Your task to perform on an android device: open sync settings in chrome Image 0: 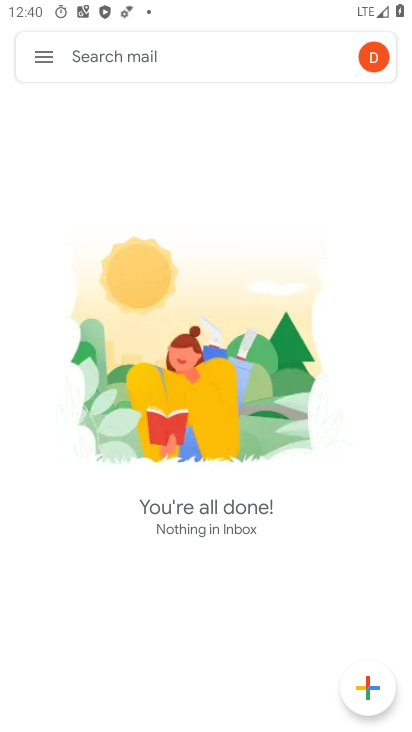
Step 0: press home button
Your task to perform on an android device: open sync settings in chrome Image 1: 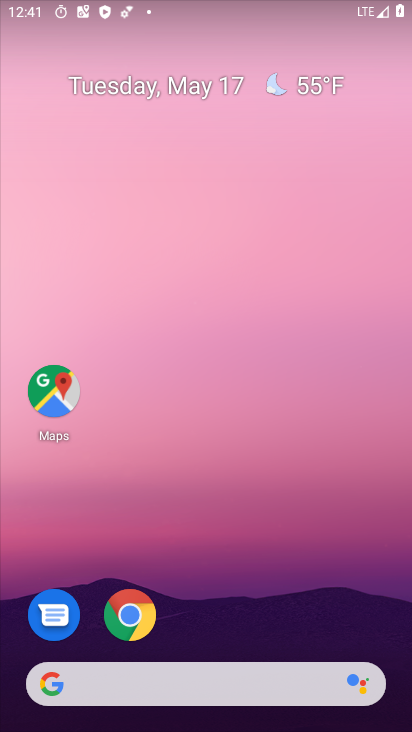
Step 1: drag from (266, 395) to (245, 78)
Your task to perform on an android device: open sync settings in chrome Image 2: 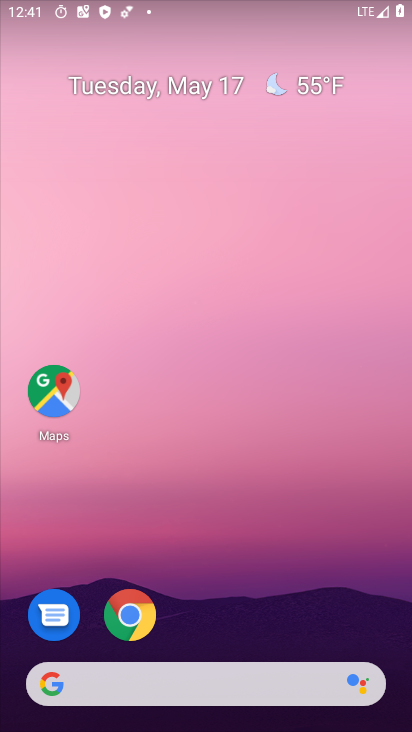
Step 2: drag from (294, 559) to (264, 167)
Your task to perform on an android device: open sync settings in chrome Image 3: 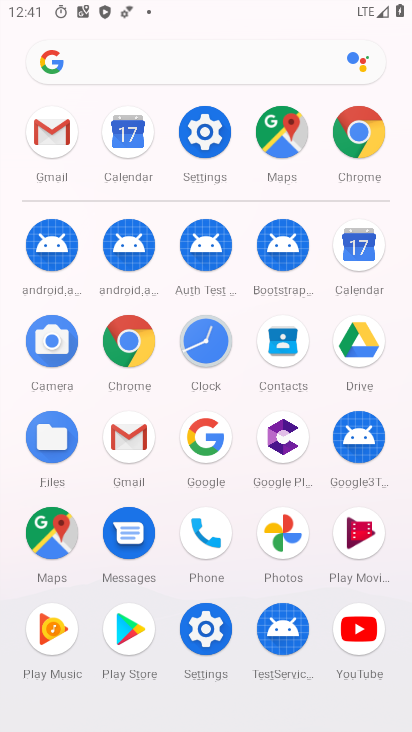
Step 3: click (214, 150)
Your task to perform on an android device: open sync settings in chrome Image 4: 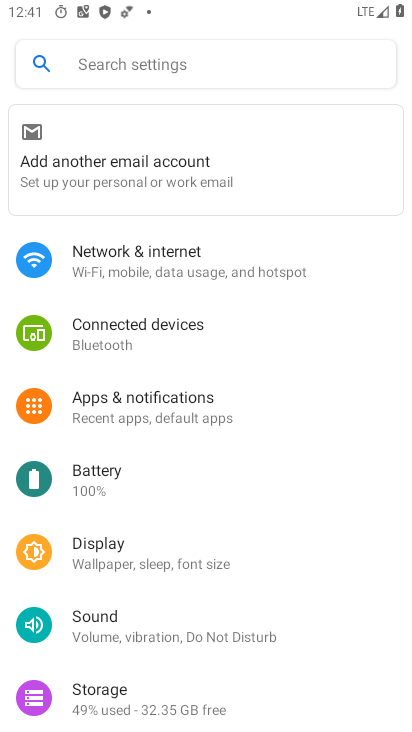
Step 4: press back button
Your task to perform on an android device: open sync settings in chrome Image 5: 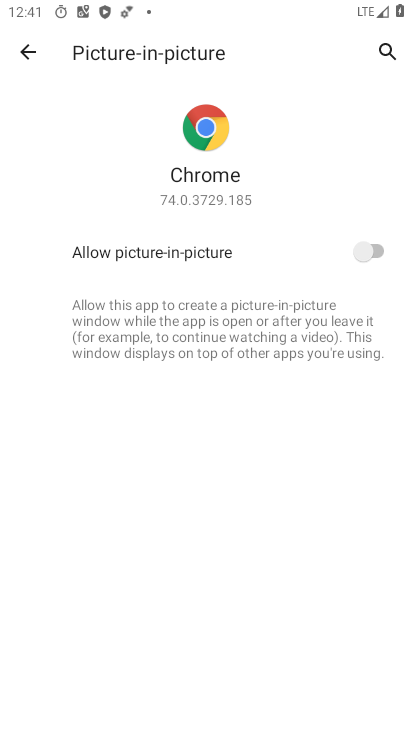
Step 5: press back button
Your task to perform on an android device: open sync settings in chrome Image 6: 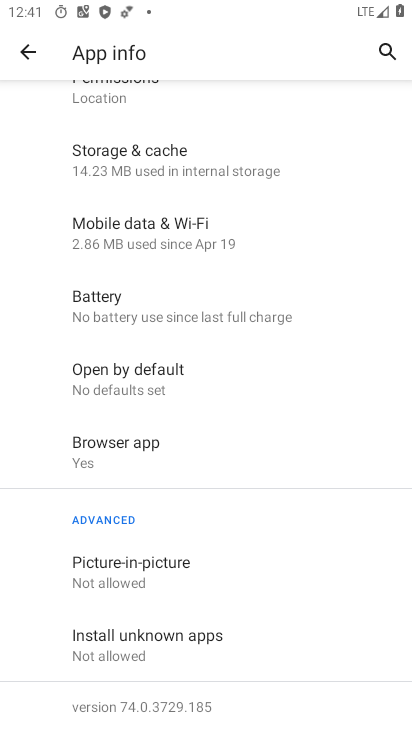
Step 6: press home button
Your task to perform on an android device: open sync settings in chrome Image 7: 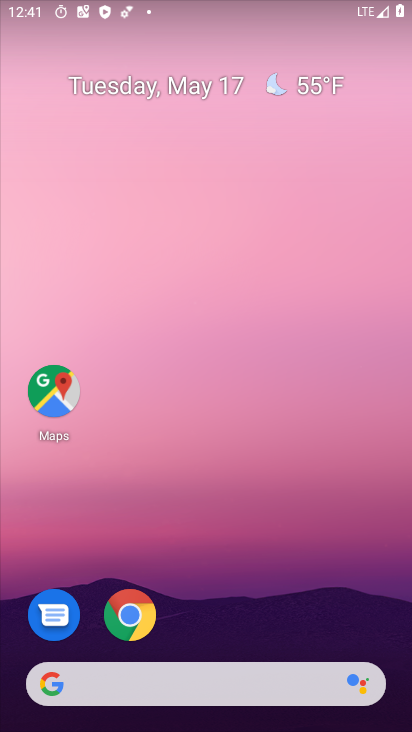
Step 7: click (134, 622)
Your task to perform on an android device: open sync settings in chrome Image 8: 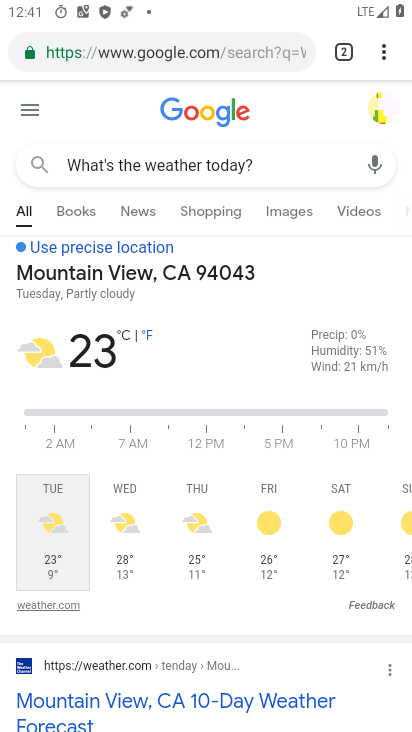
Step 8: drag from (379, 49) to (207, 597)
Your task to perform on an android device: open sync settings in chrome Image 9: 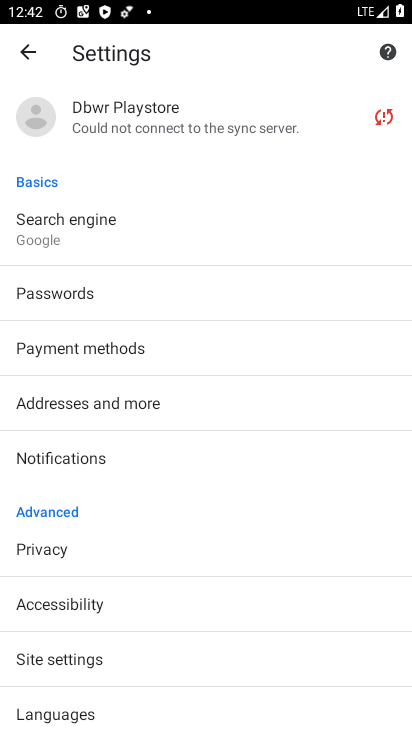
Step 9: click (117, 121)
Your task to perform on an android device: open sync settings in chrome Image 10: 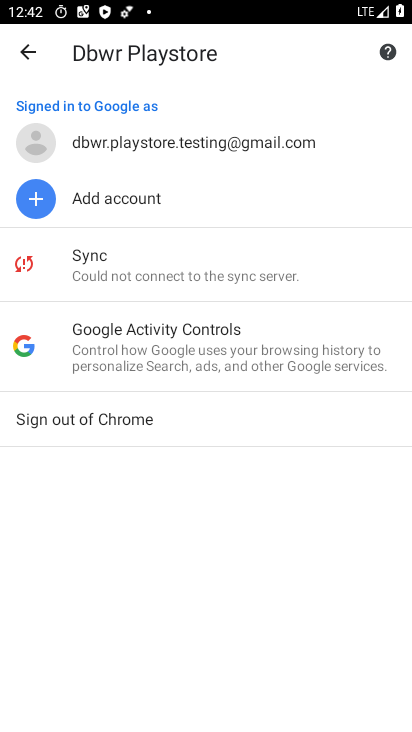
Step 10: click (79, 266)
Your task to perform on an android device: open sync settings in chrome Image 11: 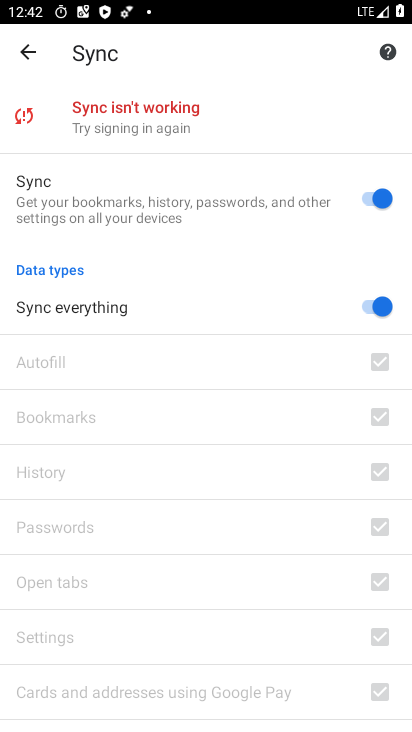
Step 11: task complete